Your task to perform on an android device: Open Google Maps and go to "Timeline" Image 0: 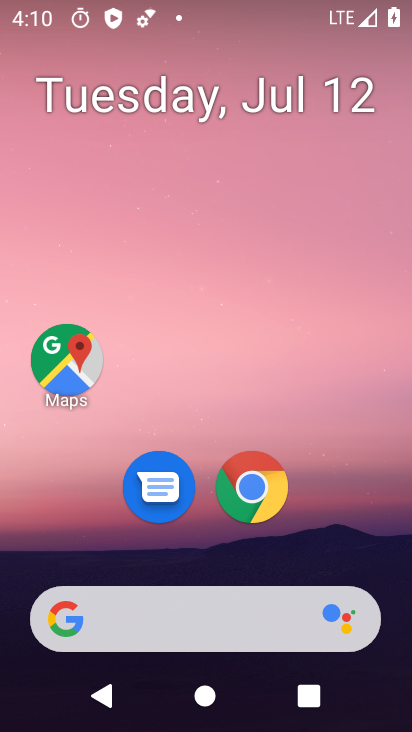
Step 0: drag from (203, 587) to (365, 695)
Your task to perform on an android device: Open Google Maps and go to "Timeline" Image 1: 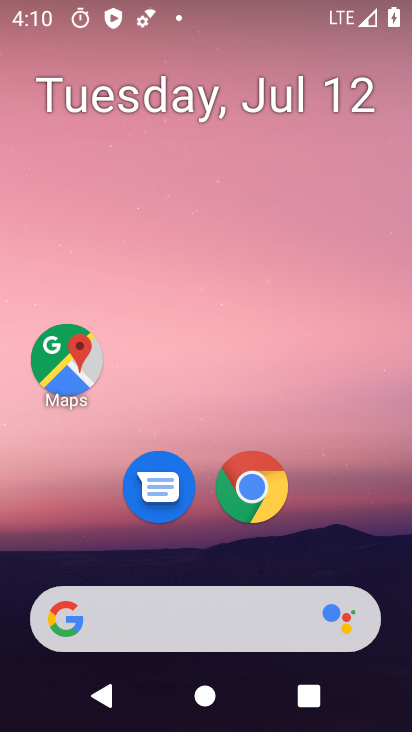
Step 1: click (70, 367)
Your task to perform on an android device: Open Google Maps and go to "Timeline" Image 2: 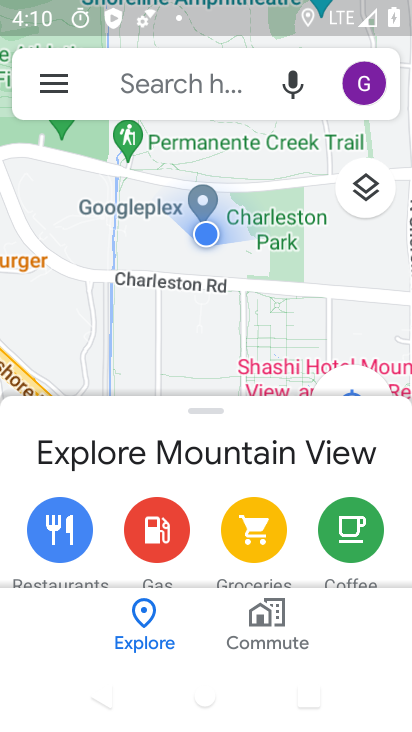
Step 2: click (55, 87)
Your task to perform on an android device: Open Google Maps and go to "Timeline" Image 3: 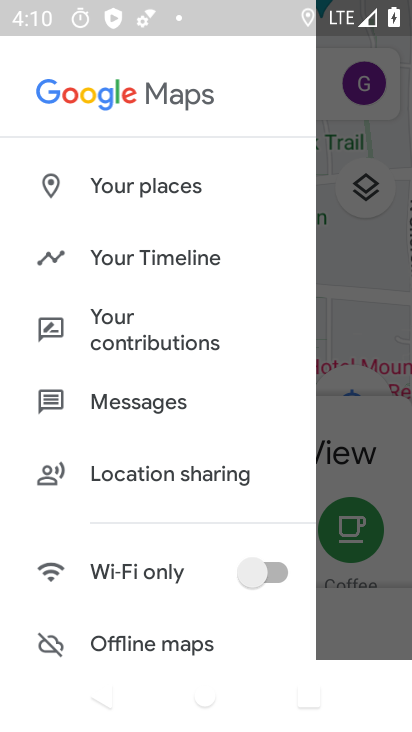
Step 3: click (187, 253)
Your task to perform on an android device: Open Google Maps and go to "Timeline" Image 4: 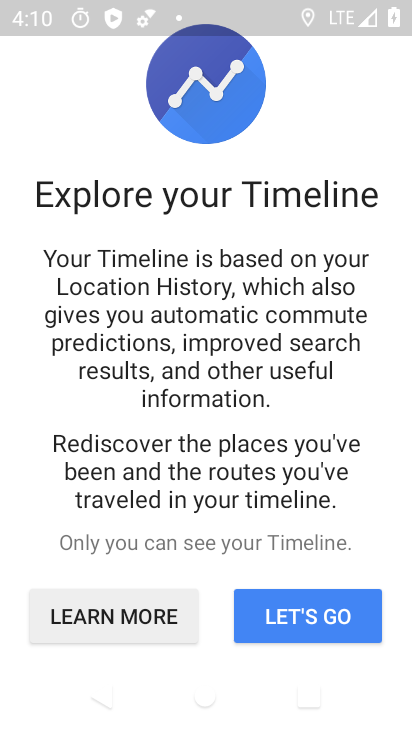
Step 4: click (315, 625)
Your task to perform on an android device: Open Google Maps and go to "Timeline" Image 5: 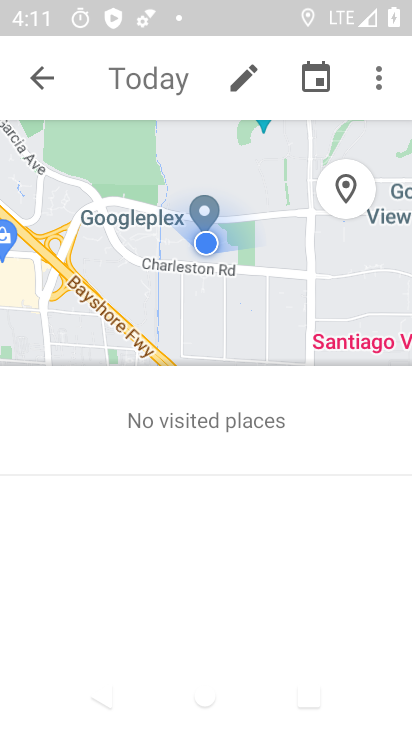
Step 5: task complete